Your task to perform on an android device: Open Google Chrome and open the bookmarks view Image 0: 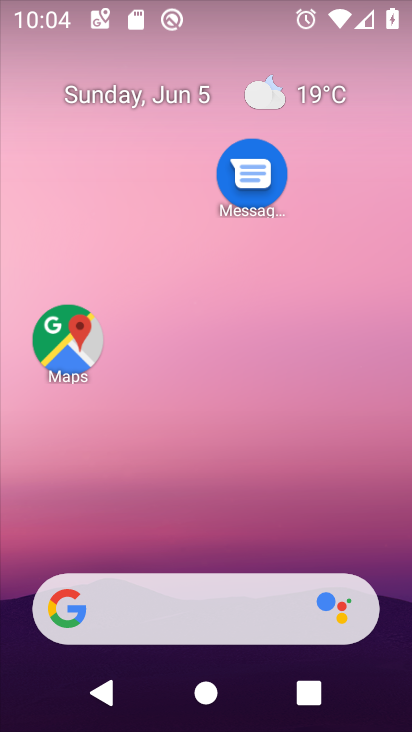
Step 0: drag from (234, 485) to (268, 36)
Your task to perform on an android device: Open Google Chrome and open the bookmarks view Image 1: 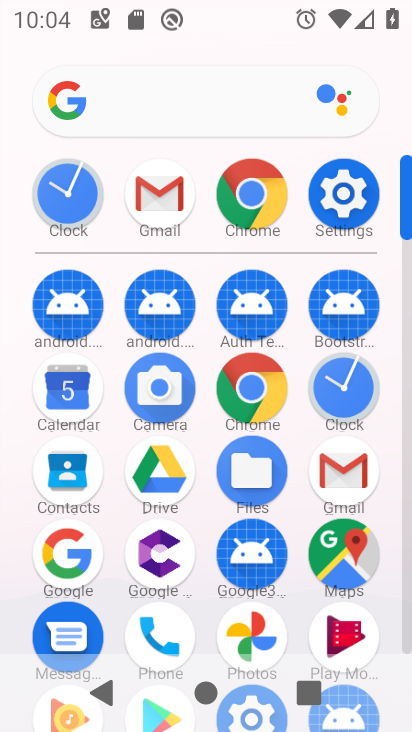
Step 1: click (248, 200)
Your task to perform on an android device: Open Google Chrome and open the bookmarks view Image 2: 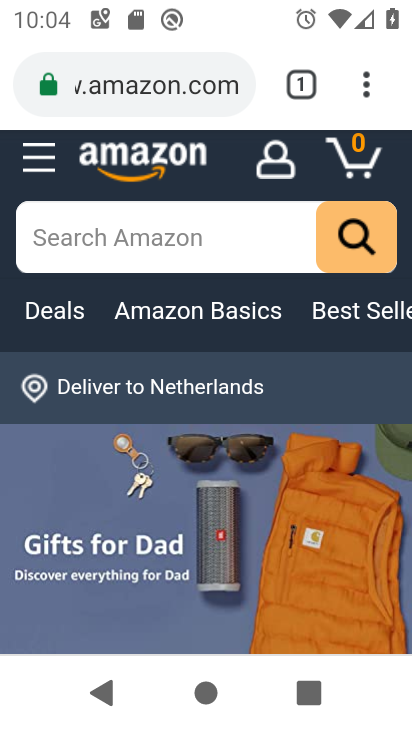
Step 2: drag from (274, 632) to (288, 267)
Your task to perform on an android device: Open Google Chrome and open the bookmarks view Image 3: 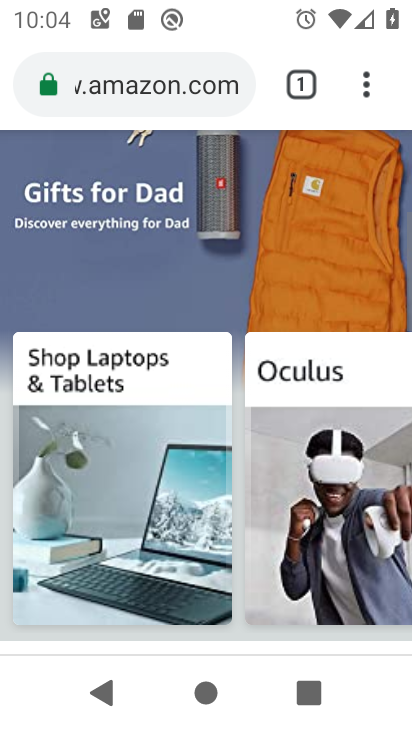
Step 3: drag from (313, 233) to (348, 731)
Your task to perform on an android device: Open Google Chrome and open the bookmarks view Image 4: 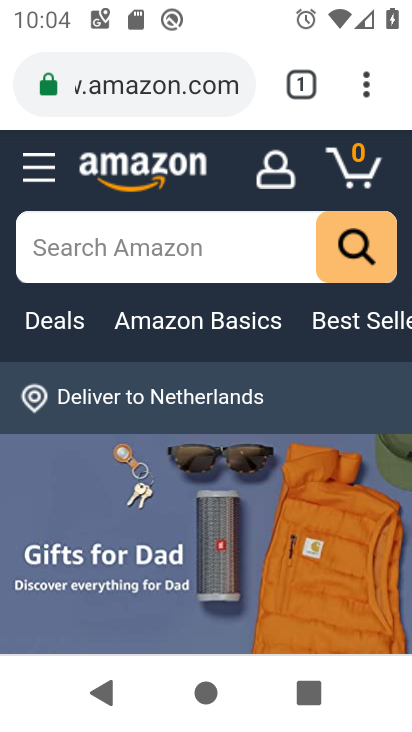
Step 4: click (362, 94)
Your task to perform on an android device: Open Google Chrome and open the bookmarks view Image 5: 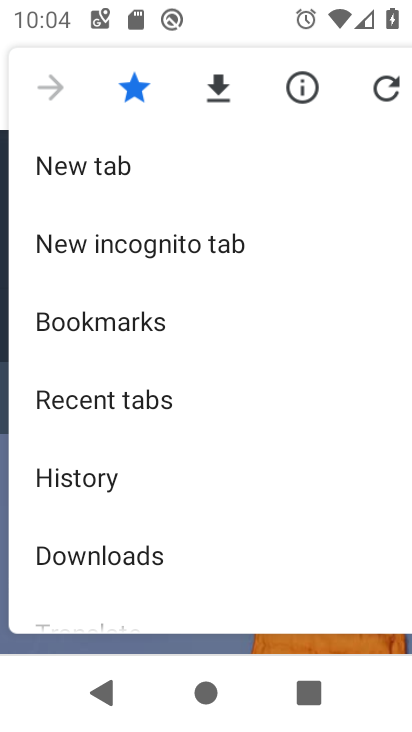
Step 5: drag from (188, 509) to (258, 113)
Your task to perform on an android device: Open Google Chrome and open the bookmarks view Image 6: 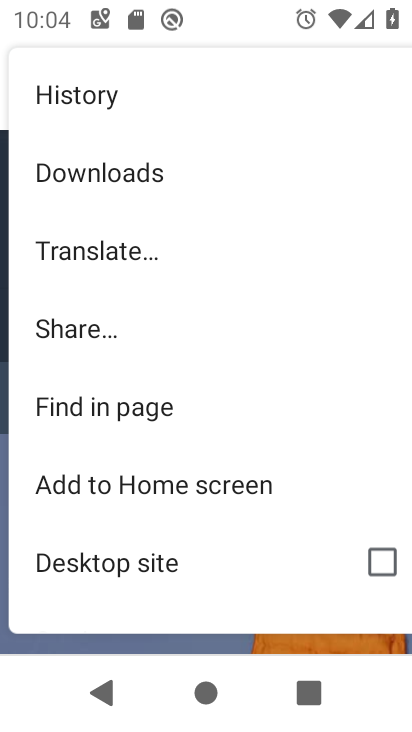
Step 6: drag from (208, 162) to (235, 729)
Your task to perform on an android device: Open Google Chrome and open the bookmarks view Image 7: 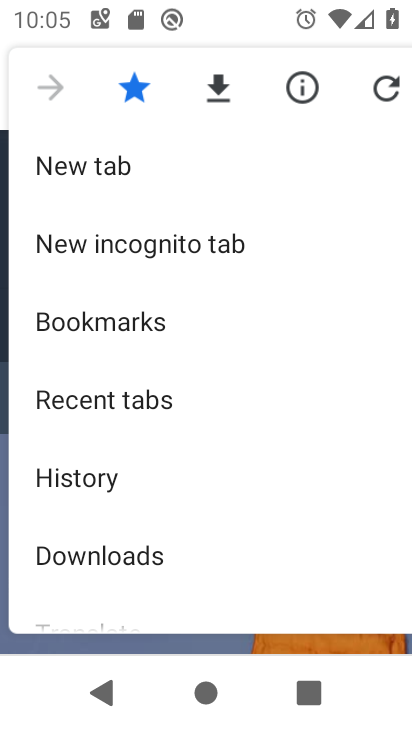
Step 7: click (192, 322)
Your task to perform on an android device: Open Google Chrome and open the bookmarks view Image 8: 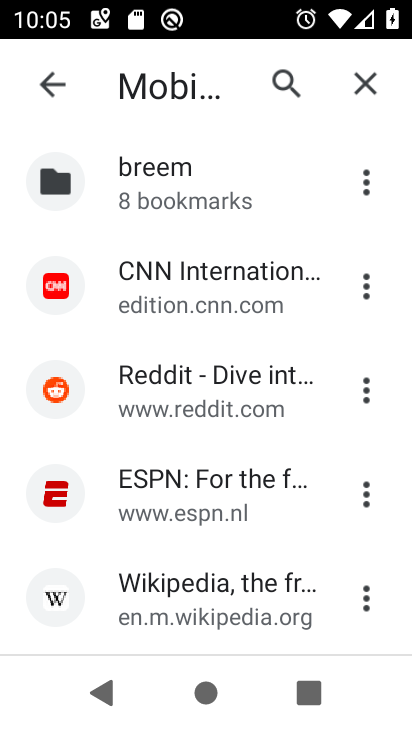
Step 8: task complete